Your task to perform on an android device: move a message to another label in the gmail app Image 0: 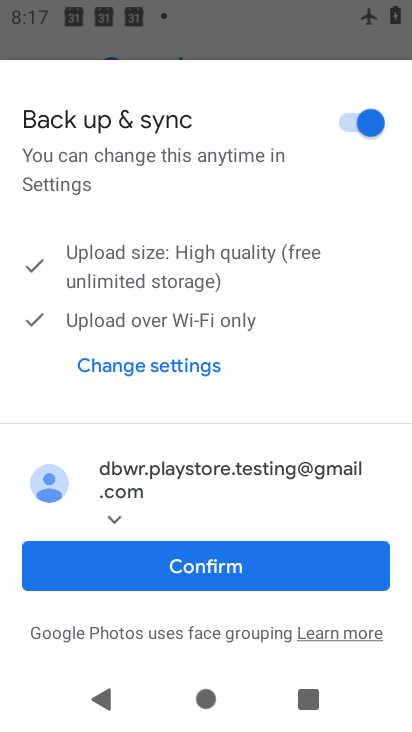
Step 0: press home button
Your task to perform on an android device: move a message to another label in the gmail app Image 1: 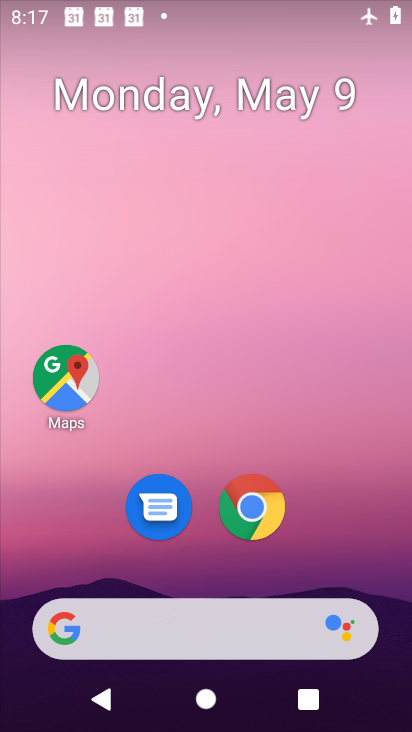
Step 1: drag from (191, 572) to (233, 5)
Your task to perform on an android device: move a message to another label in the gmail app Image 2: 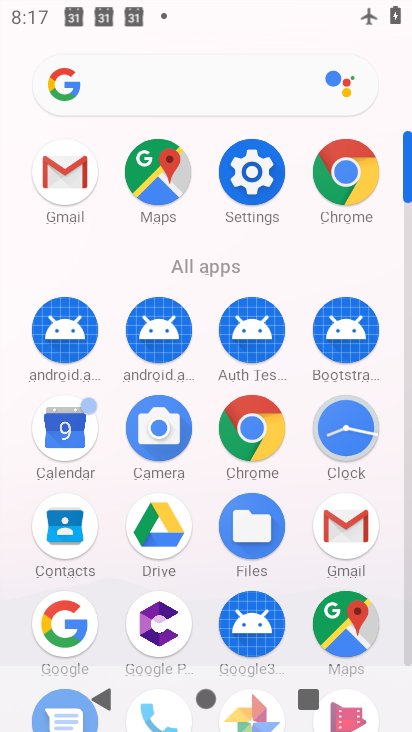
Step 2: click (338, 527)
Your task to perform on an android device: move a message to another label in the gmail app Image 3: 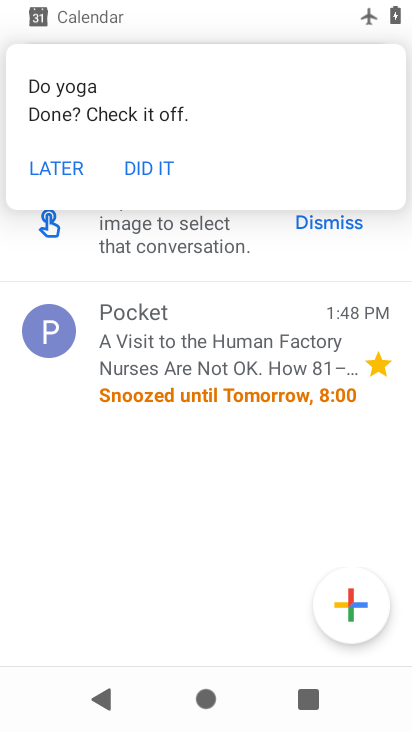
Step 3: click (161, 333)
Your task to perform on an android device: move a message to another label in the gmail app Image 4: 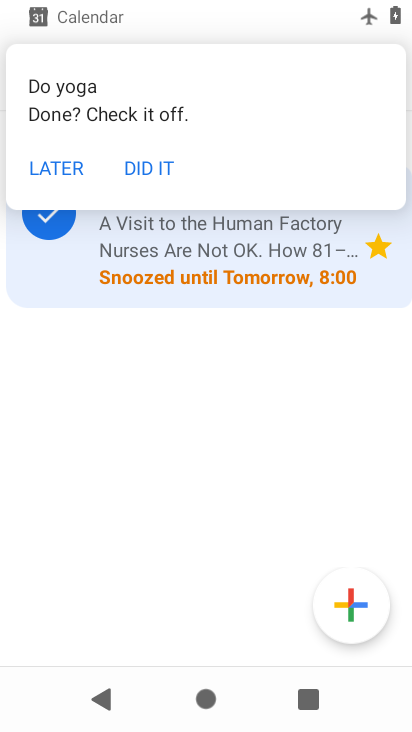
Step 4: click (61, 159)
Your task to perform on an android device: move a message to another label in the gmail app Image 5: 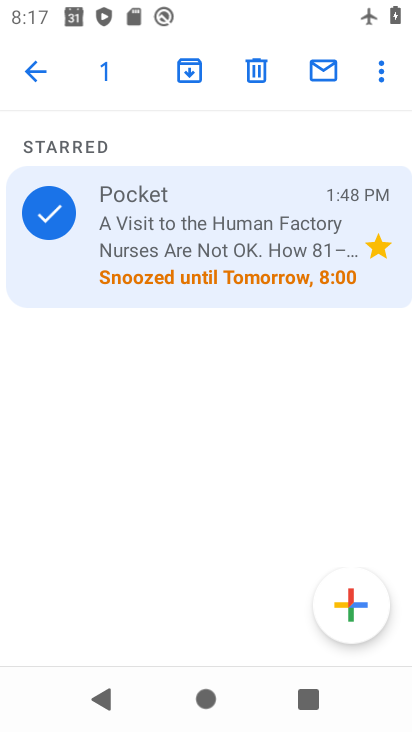
Step 5: click (374, 74)
Your task to perform on an android device: move a message to another label in the gmail app Image 6: 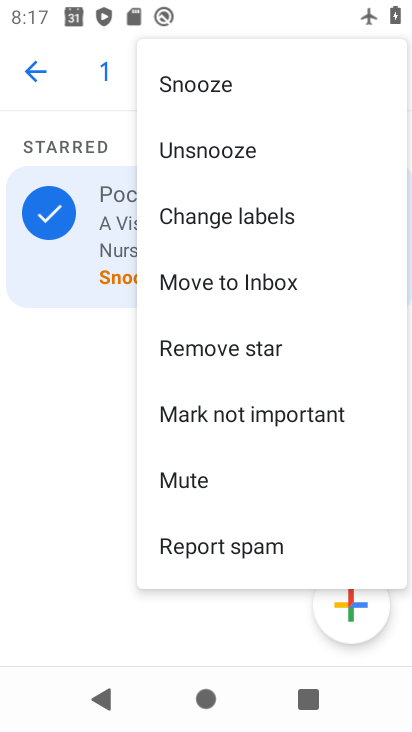
Step 6: click (213, 277)
Your task to perform on an android device: move a message to another label in the gmail app Image 7: 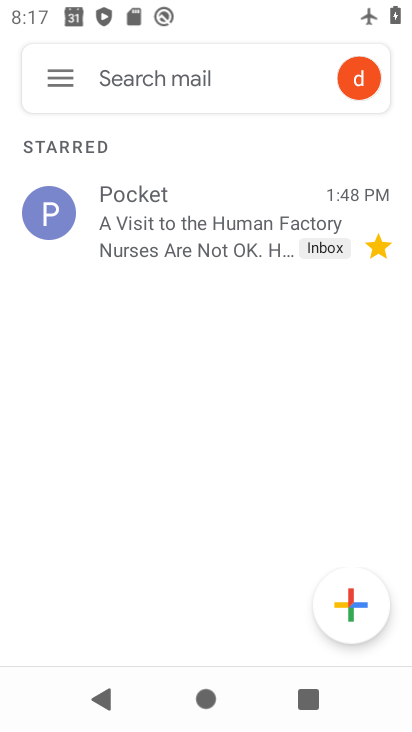
Step 7: task complete